Your task to perform on an android device: Open my contact list Image 0: 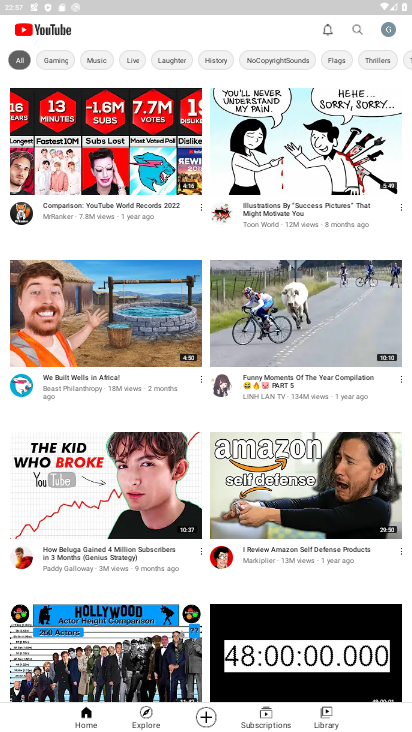
Step 0: press home button
Your task to perform on an android device: Open my contact list Image 1: 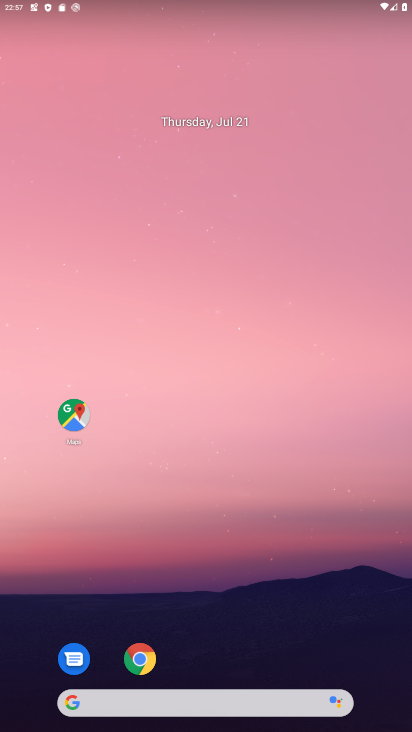
Step 1: drag from (256, 151) to (263, 110)
Your task to perform on an android device: Open my contact list Image 2: 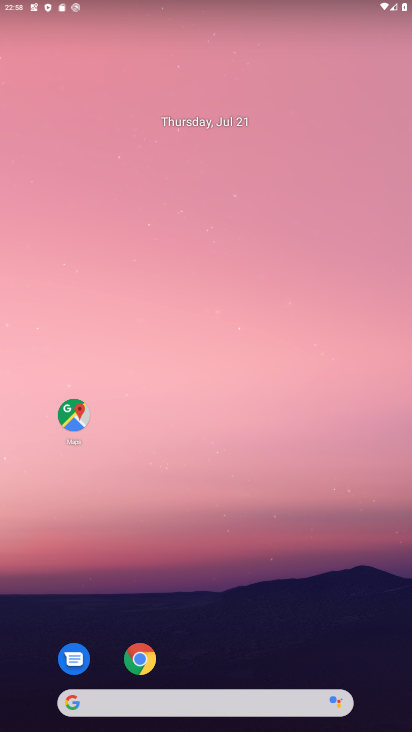
Step 2: drag from (331, 572) to (320, 95)
Your task to perform on an android device: Open my contact list Image 3: 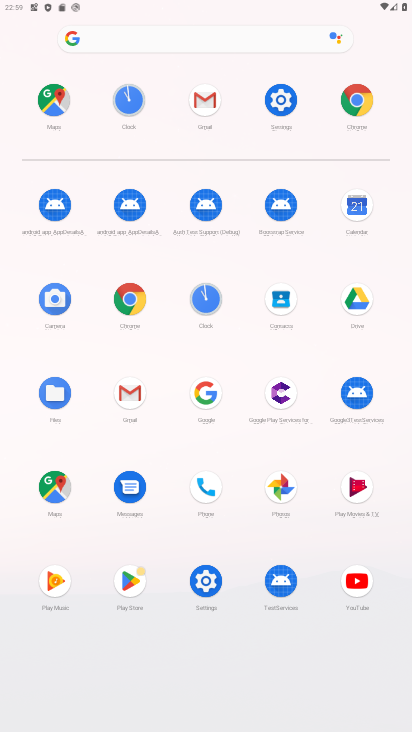
Step 3: click (277, 299)
Your task to perform on an android device: Open my contact list Image 4: 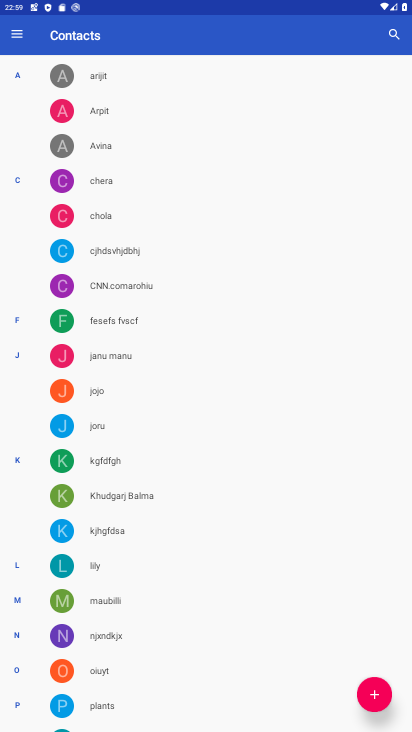
Step 4: task complete